Your task to perform on an android device: turn off smart reply in the gmail app Image 0: 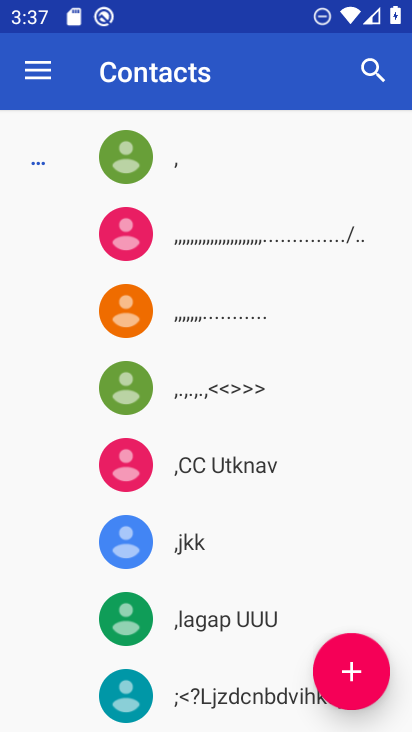
Step 0: press home button
Your task to perform on an android device: turn off smart reply in the gmail app Image 1: 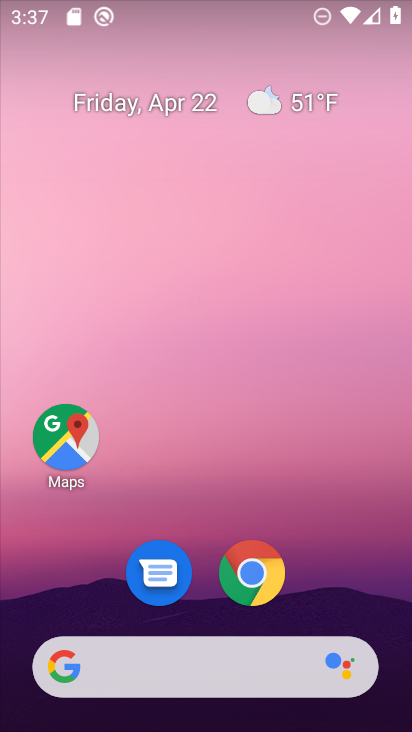
Step 1: drag from (290, 448) to (340, 93)
Your task to perform on an android device: turn off smart reply in the gmail app Image 2: 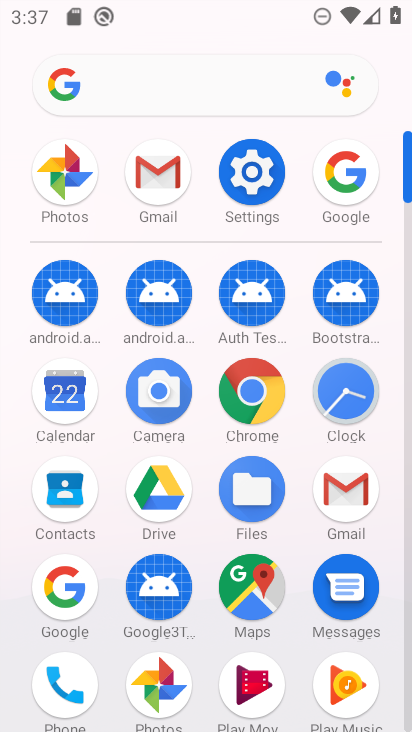
Step 2: click (175, 178)
Your task to perform on an android device: turn off smart reply in the gmail app Image 3: 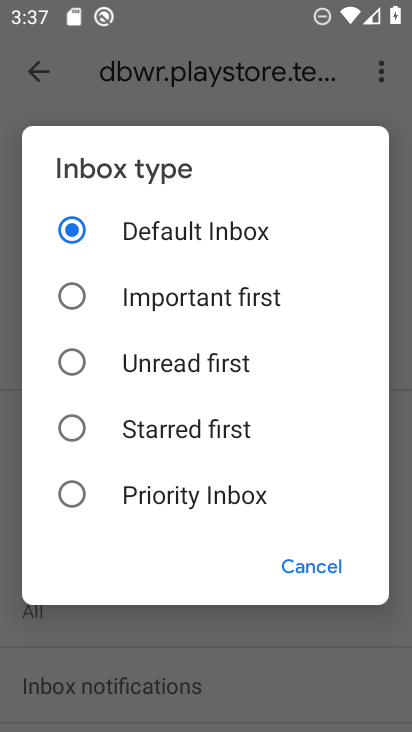
Step 3: click (299, 565)
Your task to perform on an android device: turn off smart reply in the gmail app Image 4: 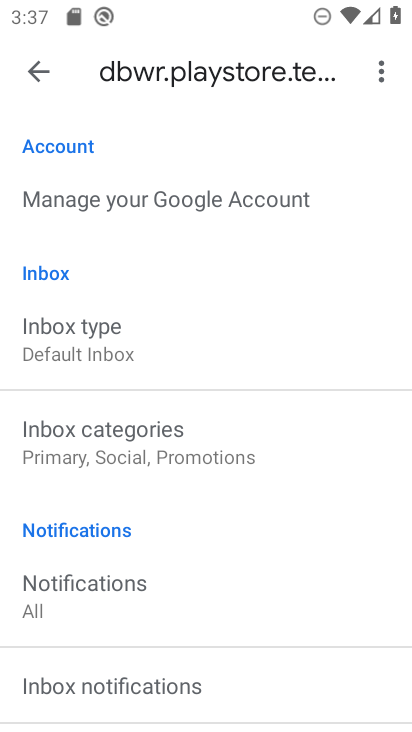
Step 4: task complete